Your task to perform on an android device: Check the news Image 0: 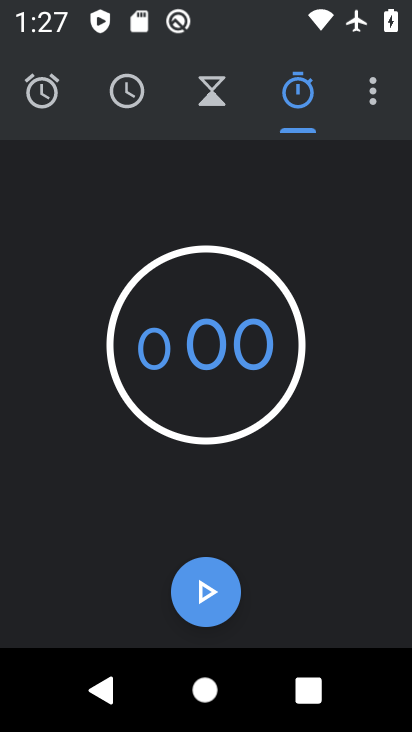
Step 0: press home button
Your task to perform on an android device: Check the news Image 1: 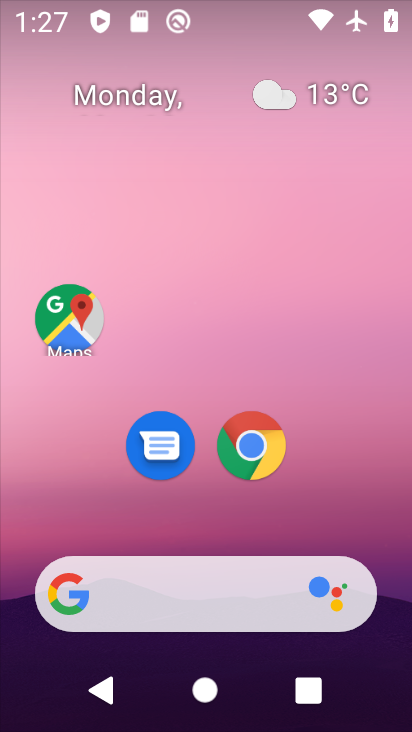
Step 1: drag from (400, 636) to (112, 21)
Your task to perform on an android device: Check the news Image 2: 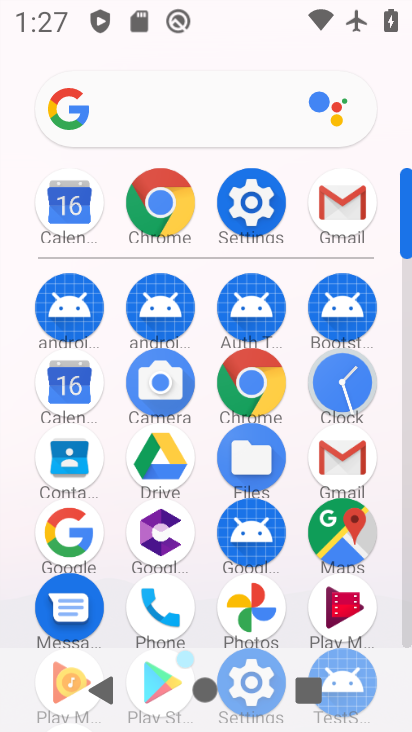
Step 2: click (250, 376)
Your task to perform on an android device: Check the news Image 3: 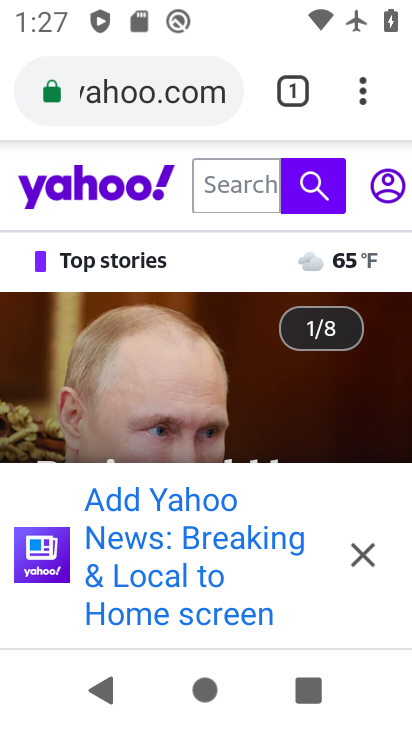
Step 3: press back button
Your task to perform on an android device: Check the news Image 4: 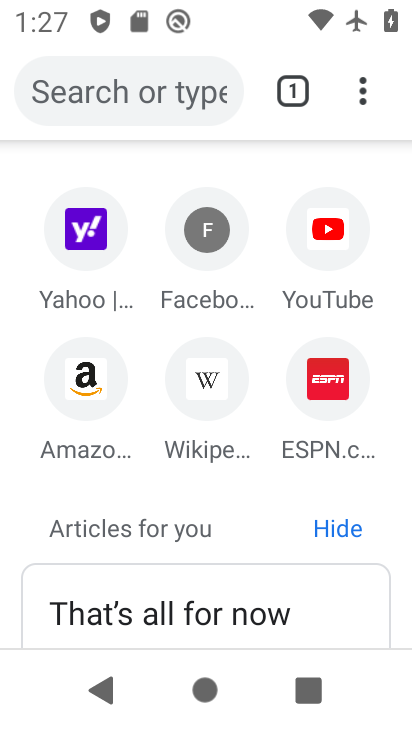
Step 4: drag from (163, 584) to (191, 11)
Your task to perform on an android device: Check the news Image 5: 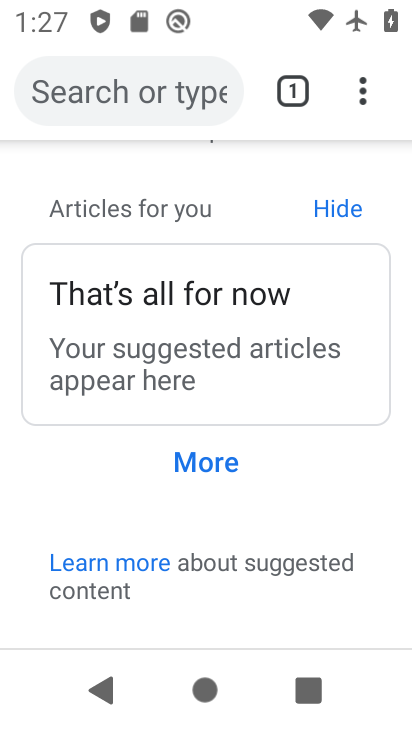
Step 5: click (192, 464)
Your task to perform on an android device: Check the news Image 6: 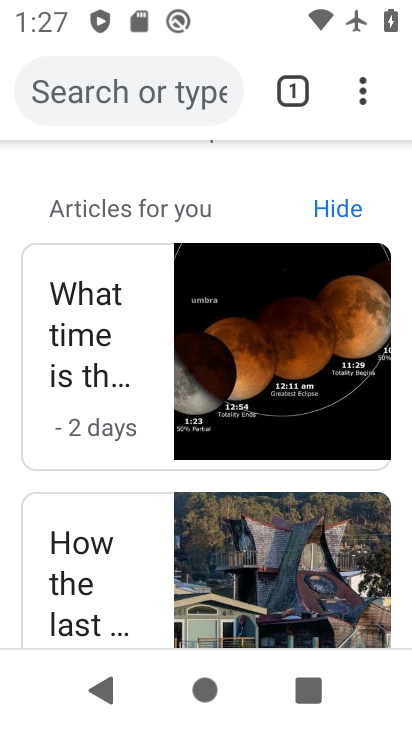
Step 6: drag from (127, 569) to (136, 244)
Your task to perform on an android device: Check the news Image 7: 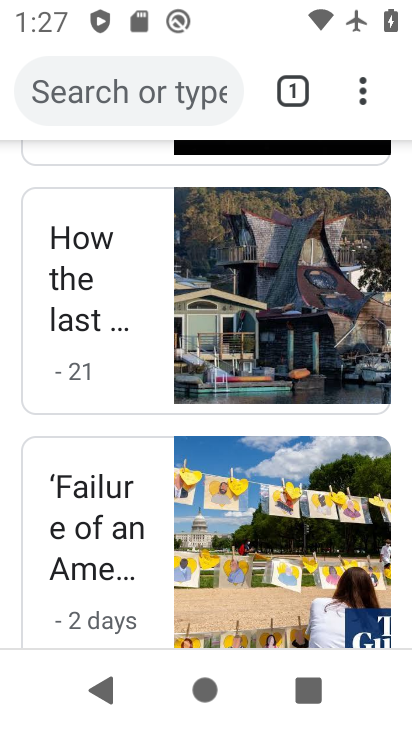
Step 7: click (95, 256)
Your task to perform on an android device: Check the news Image 8: 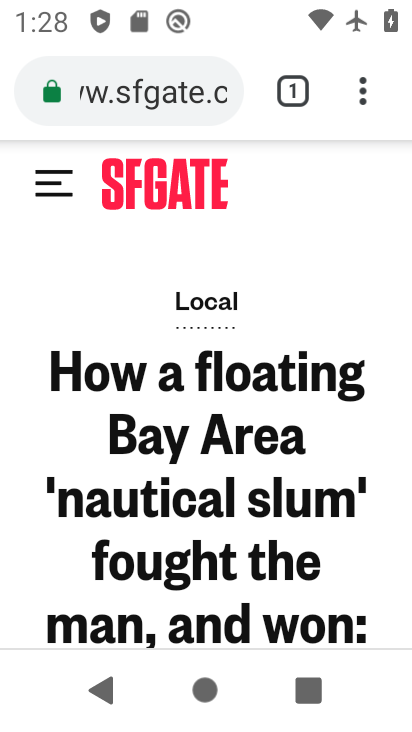
Step 8: task complete